Your task to perform on an android device: Open wifi settings Image 0: 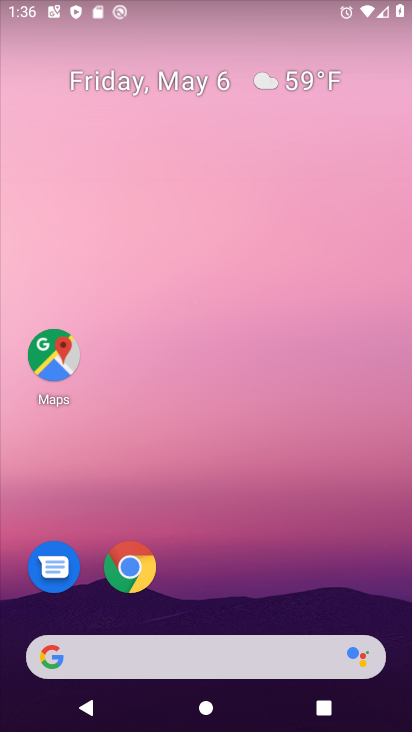
Step 0: drag from (295, 8) to (294, 456)
Your task to perform on an android device: Open wifi settings Image 1: 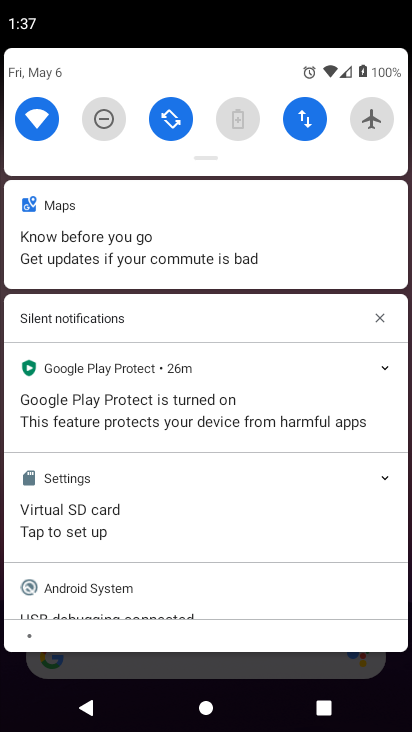
Step 1: click (47, 122)
Your task to perform on an android device: Open wifi settings Image 2: 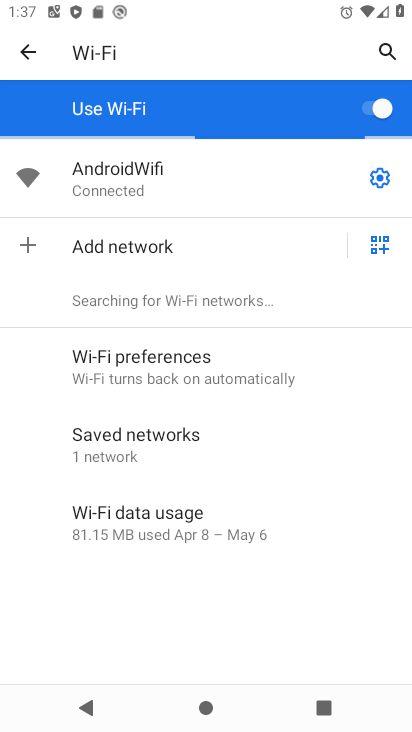
Step 2: task complete